Your task to perform on an android device: What's on the menu at McDonalds? Image 0: 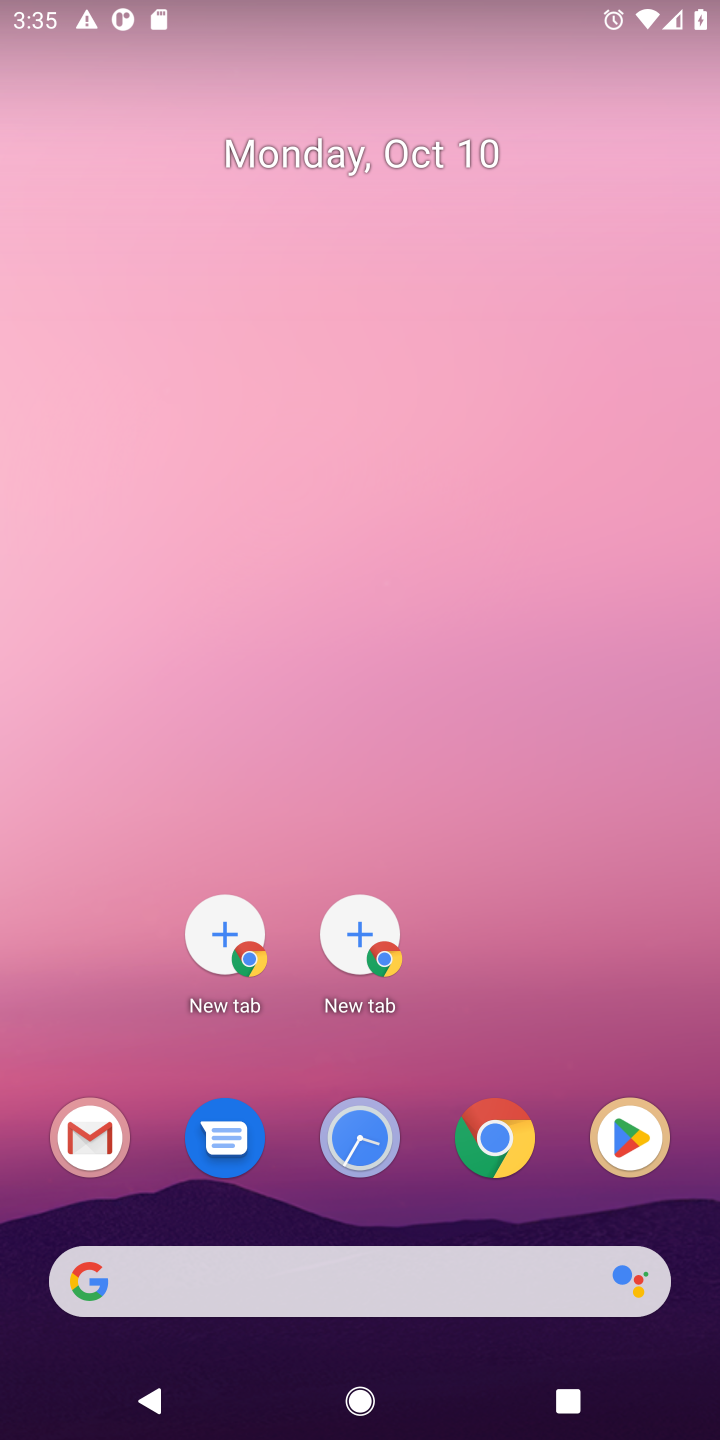
Step 0: click (495, 1155)
Your task to perform on an android device: What's on the menu at McDonalds? Image 1: 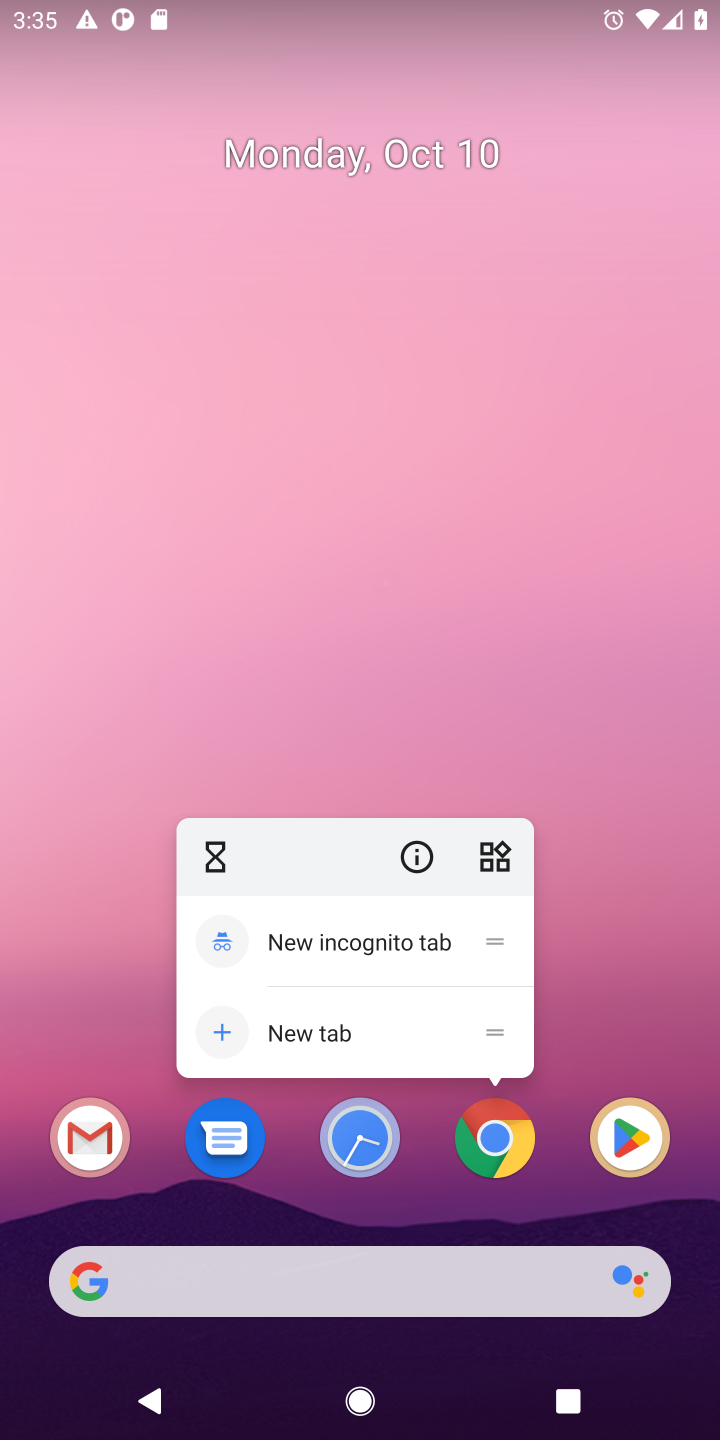
Step 1: click (517, 1157)
Your task to perform on an android device: What's on the menu at McDonalds? Image 2: 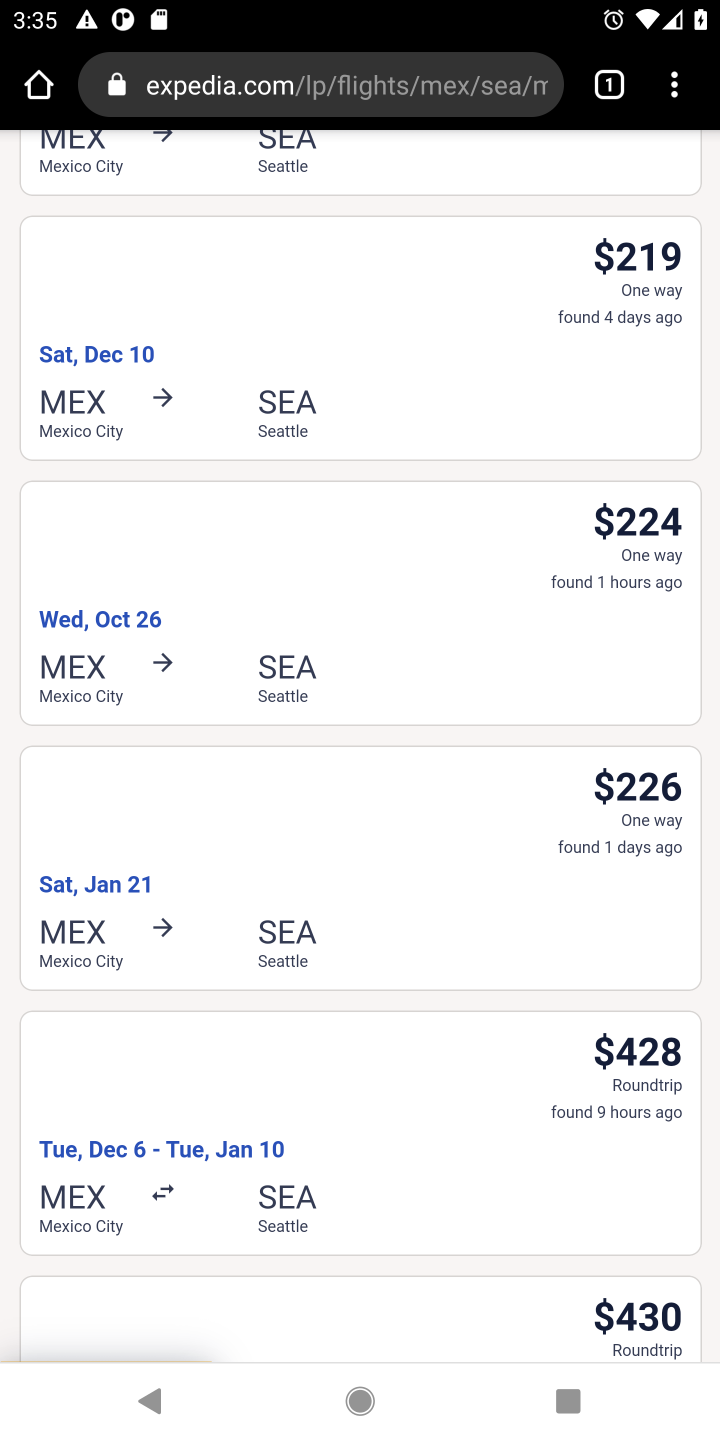
Step 2: click (392, 93)
Your task to perform on an android device: What's on the menu at McDonalds? Image 3: 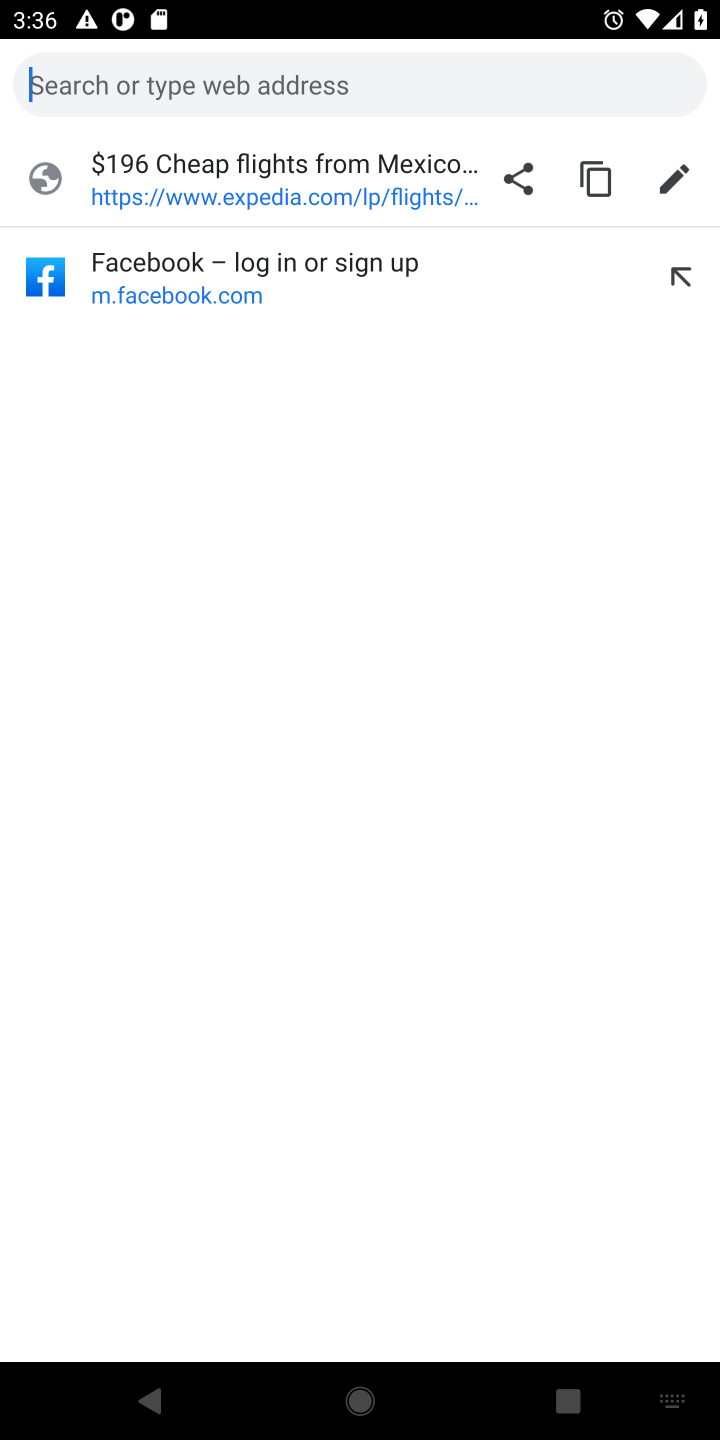
Step 3: type "menu of McDonalds"
Your task to perform on an android device: What's on the menu at McDonalds? Image 4: 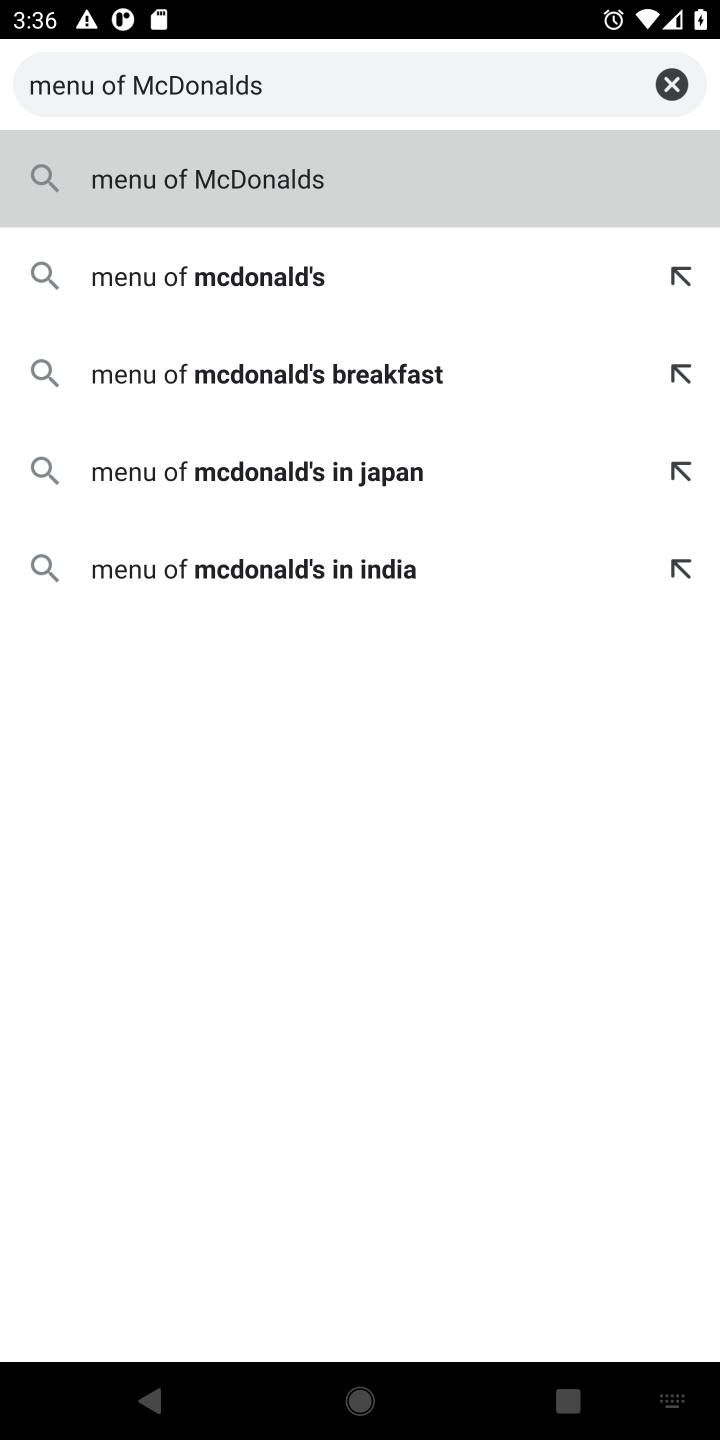
Step 4: press enter
Your task to perform on an android device: What's on the menu at McDonalds? Image 5: 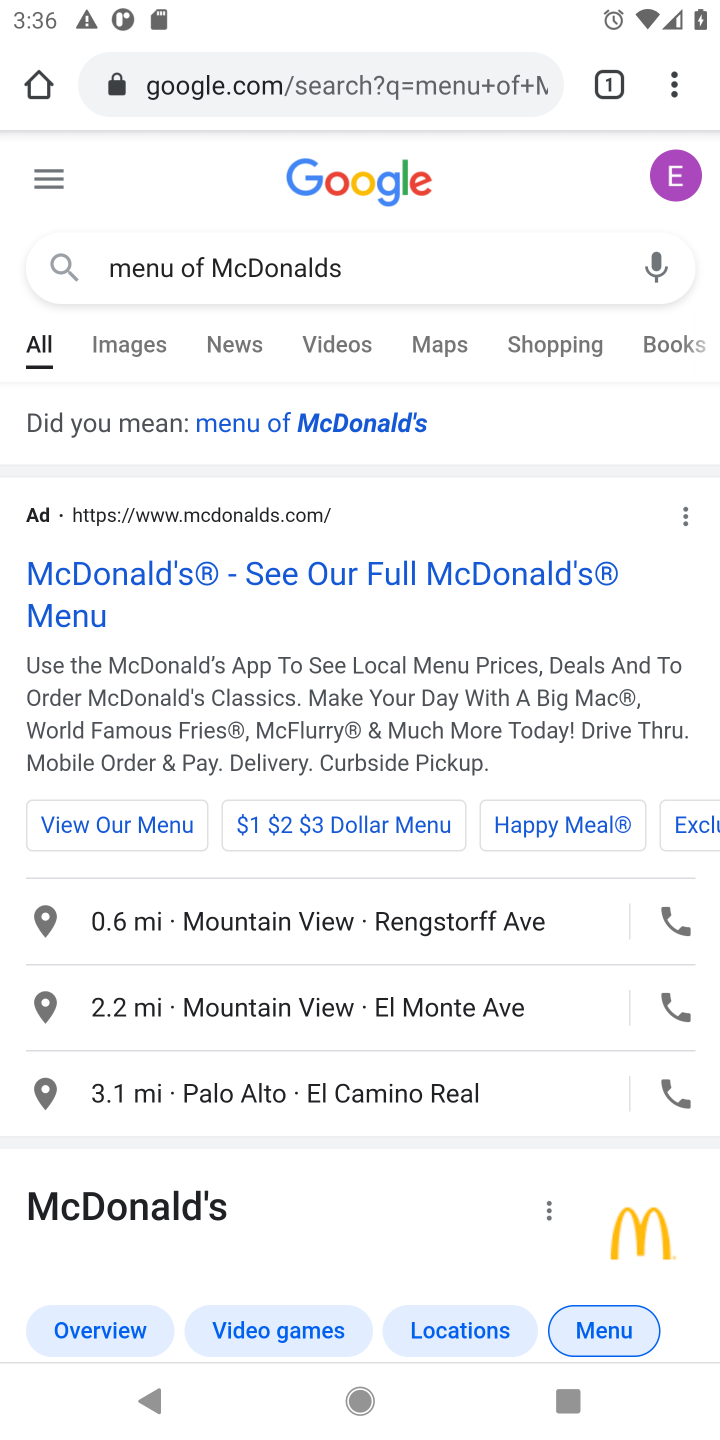
Step 5: click (345, 580)
Your task to perform on an android device: What's on the menu at McDonalds? Image 6: 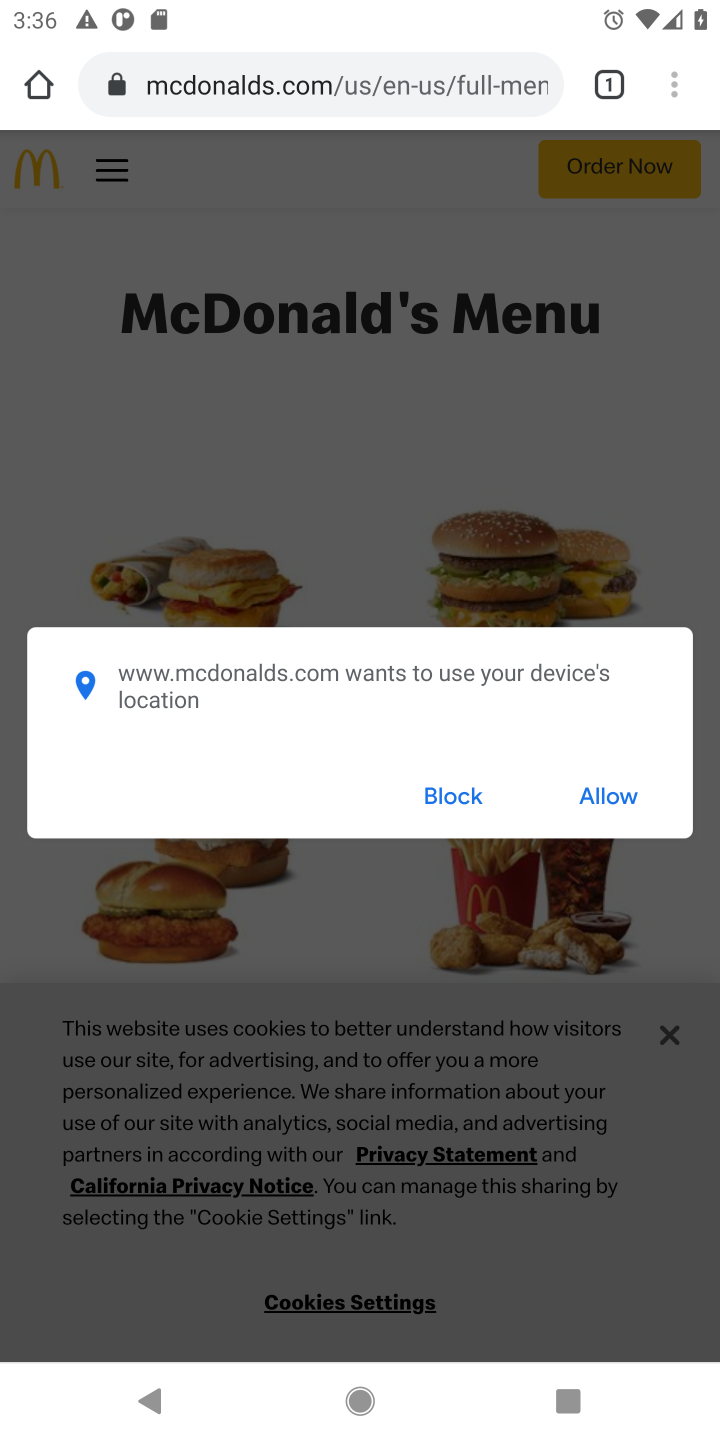
Step 6: click (613, 826)
Your task to perform on an android device: What's on the menu at McDonalds? Image 7: 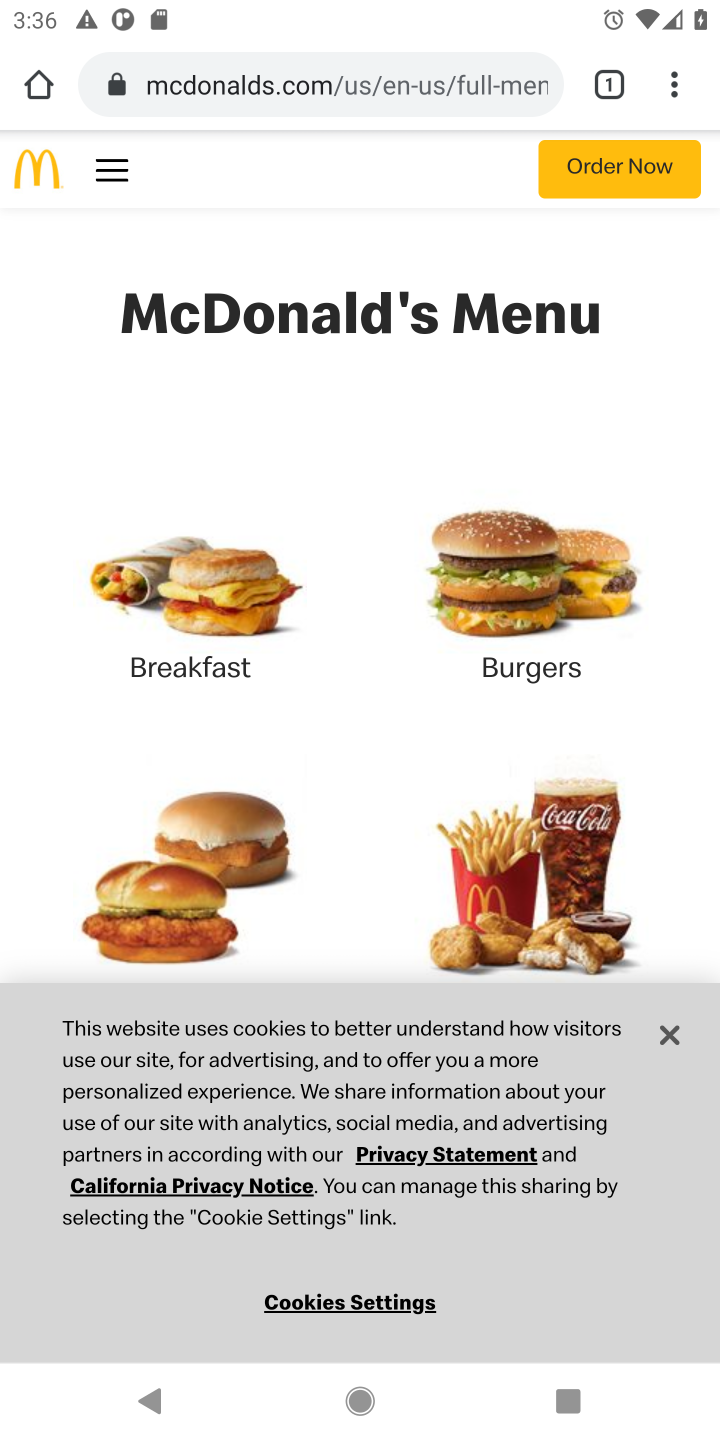
Step 7: click (658, 1034)
Your task to perform on an android device: What's on the menu at McDonalds? Image 8: 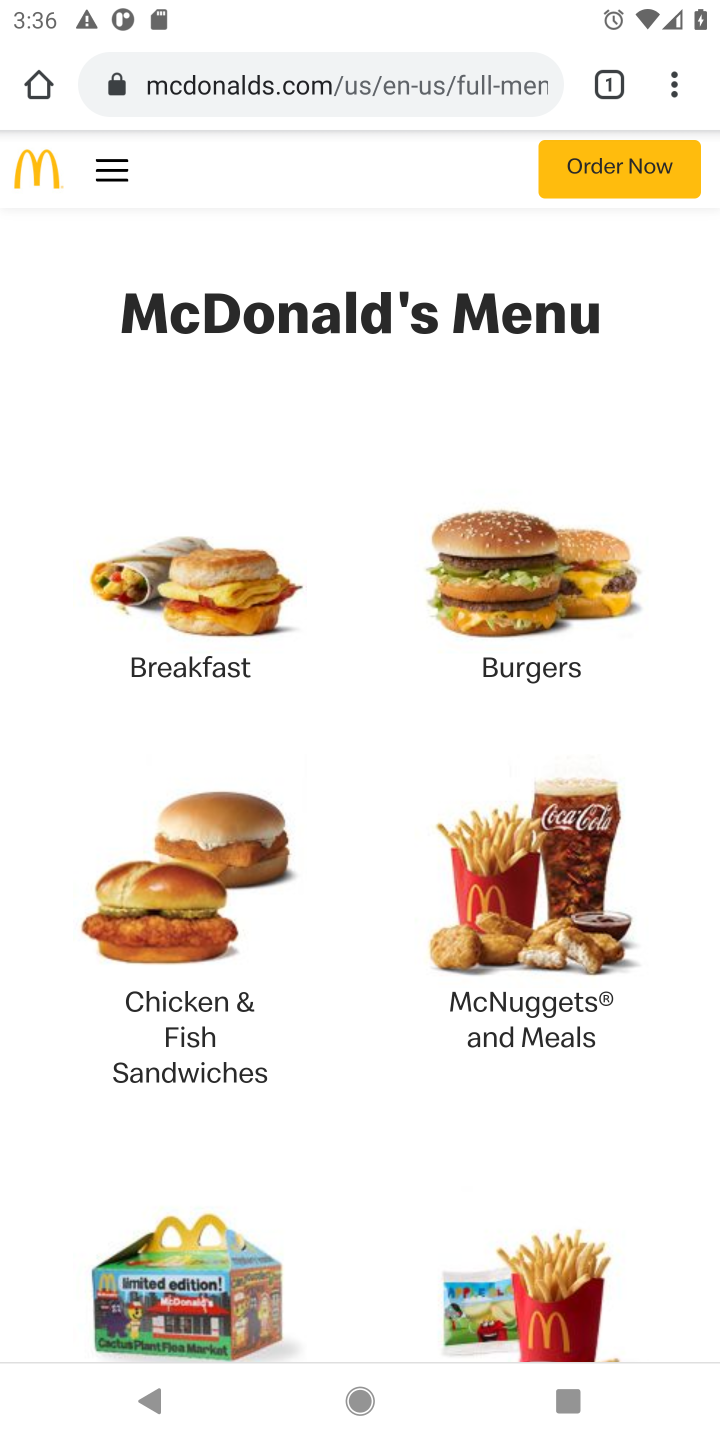
Step 8: task complete